Your task to perform on an android device: When is my next appointment? Image 0: 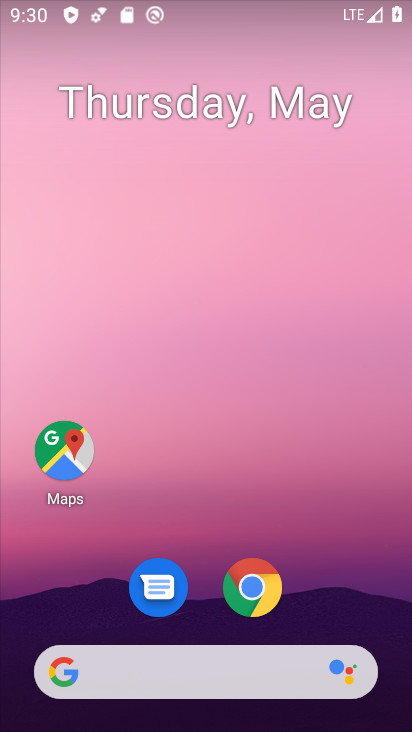
Step 0: drag from (360, 586) to (310, 12)
Your task to perform on an android device: When is my next appointment? Image 1: 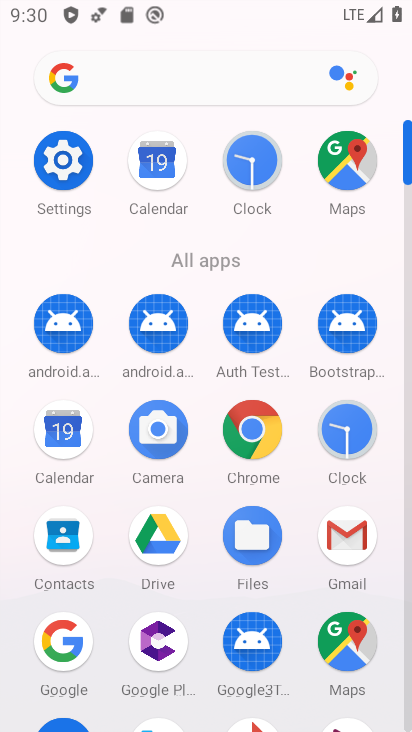
Step 1: click (150, 165)
Your task to perform on an android device: When is my next appointment? Image 2: 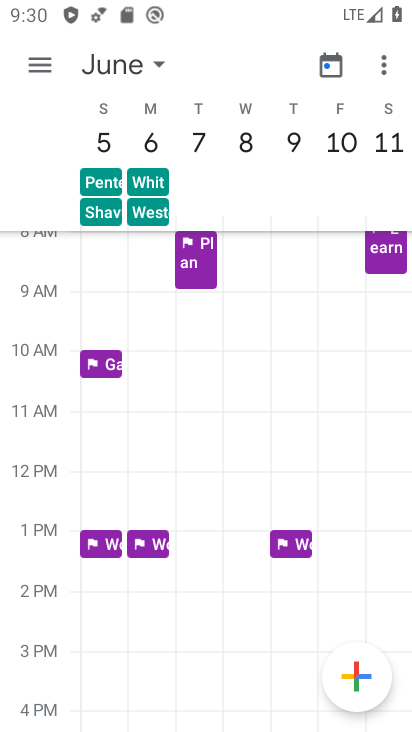
Step 2: click (327, 76)
Your task to perform on an android device: When is my next appointment? Image 3: 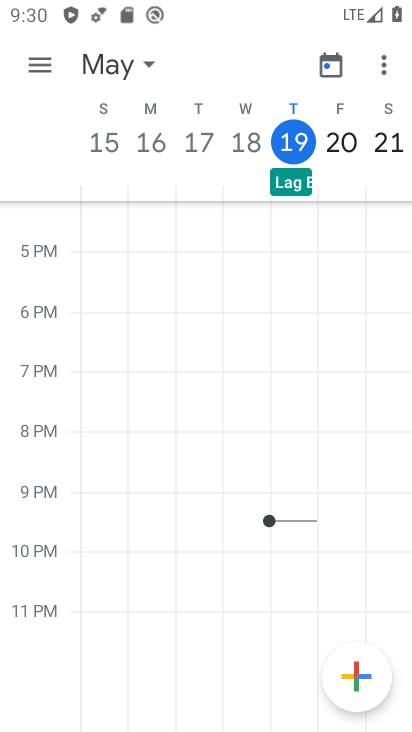
Step 3: click (42, 63)
Your task to perform on an android device: When is my next appointment? Image 4: 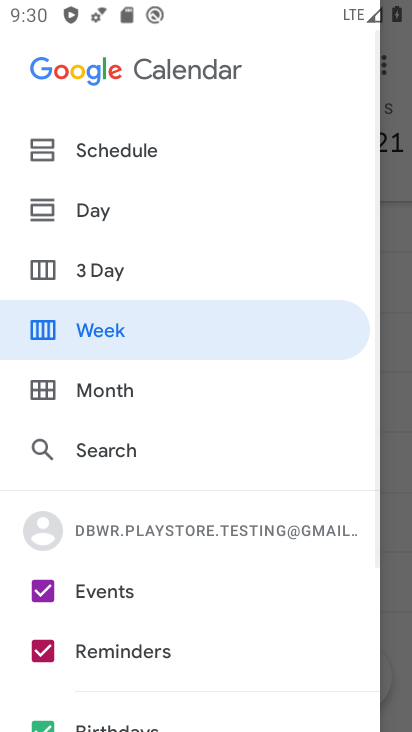
Step 4: click (94, 151)
Your task to perform on an android device: When is my next appointment? Image 5: 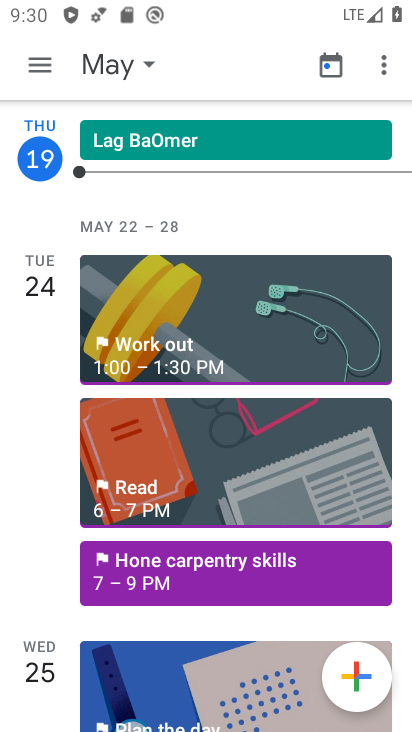
Step 5: click (195, 580)
Your task to perform on an android device: When is my next appointment? Image 6: 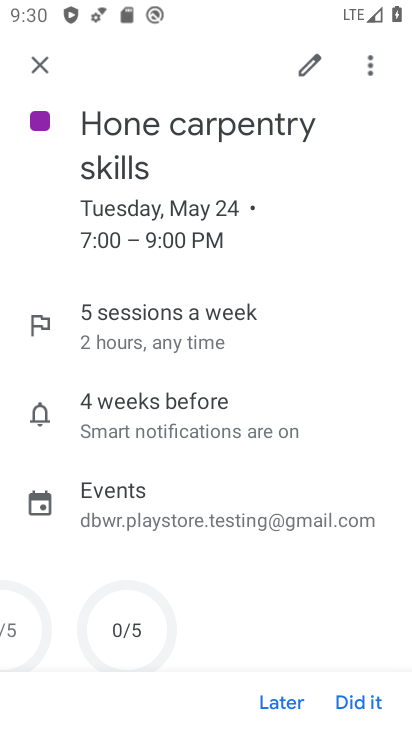
Step 6: task complete